Your task to perform on an android device: Open internet settings Image 0: 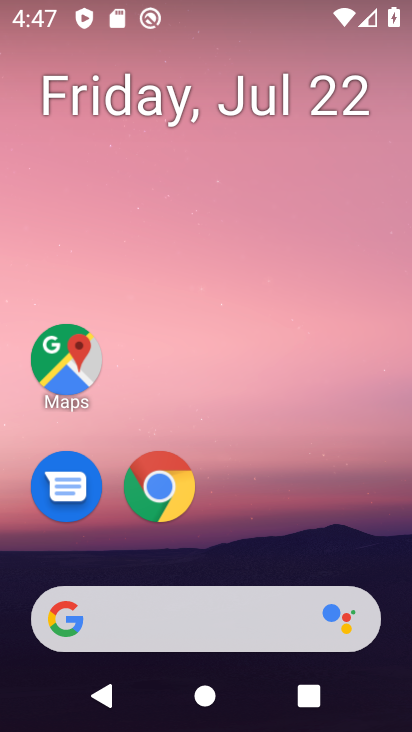
Step 0: drag from (299, 417) to (265, 68)
Your task to perform on an android device: Open internet settings Image 1: 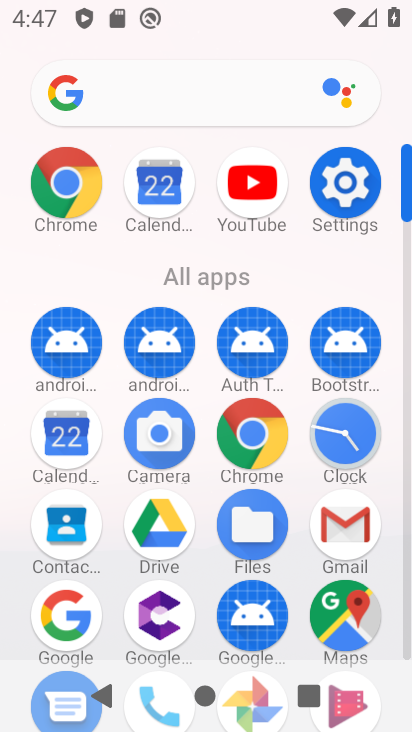
Step 1: click (336, 200)
Your task to perform on an android device: Open internet settings Image 2: 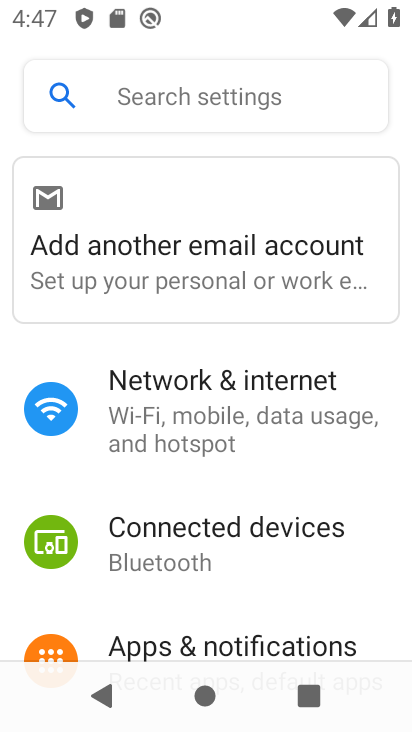
Step 2: click (287, 396)
Your task to perform on an android device: Open internet settings Image 3: 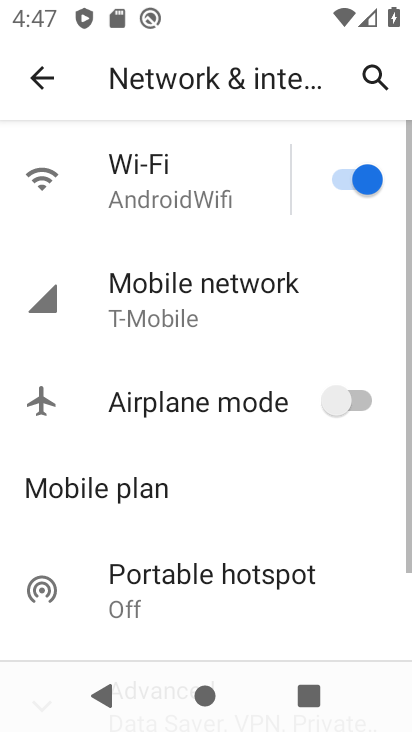
Step 3: task complete